Your task to perform on an android device: Open Google Chrome Image 0: 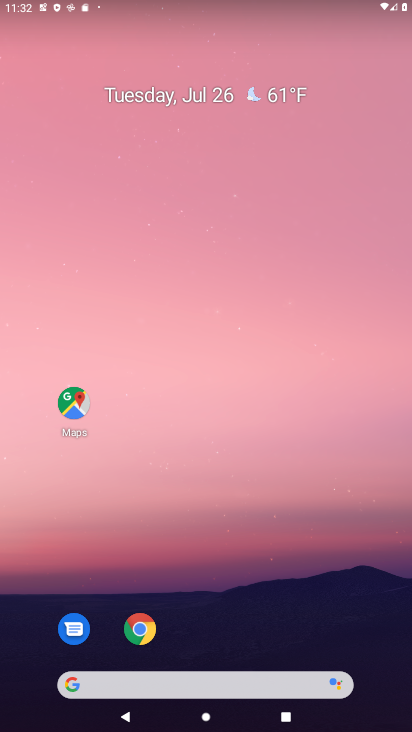
Step 0: click (150, 632)
Your task to perform on an android device: Open Google Chrome Image 1: 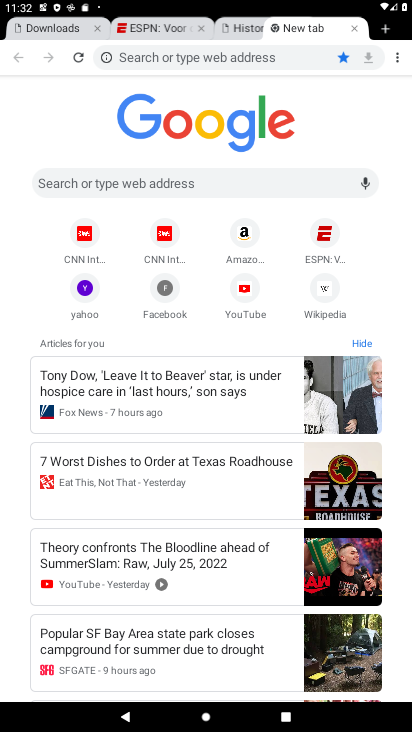
Step 1: task complete